Your task to perform on an android device: set an alarm Image 0: 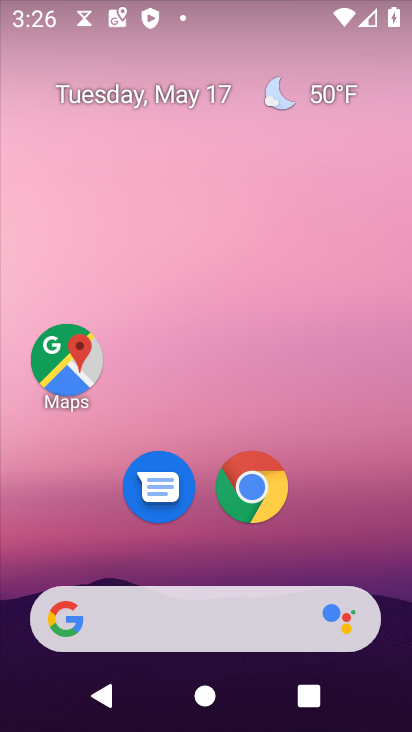
Step 0: drag from (374, 581) to (323, 215)
Your task to perform on an android device: set an alarm Image 1: 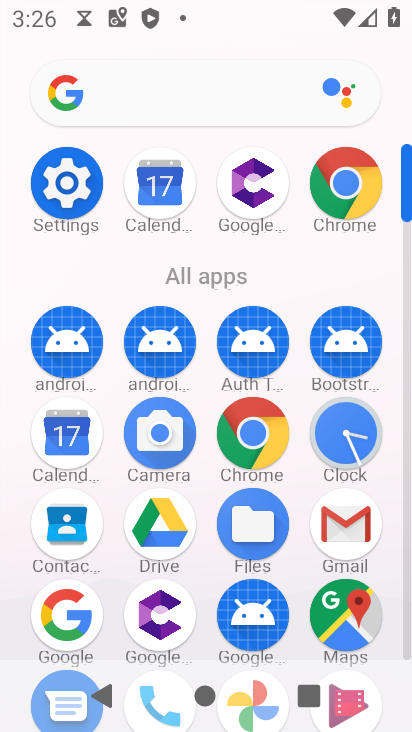
Step 1: click (406, 644)
Your task to perform on an android device: set an alarm Image 2: 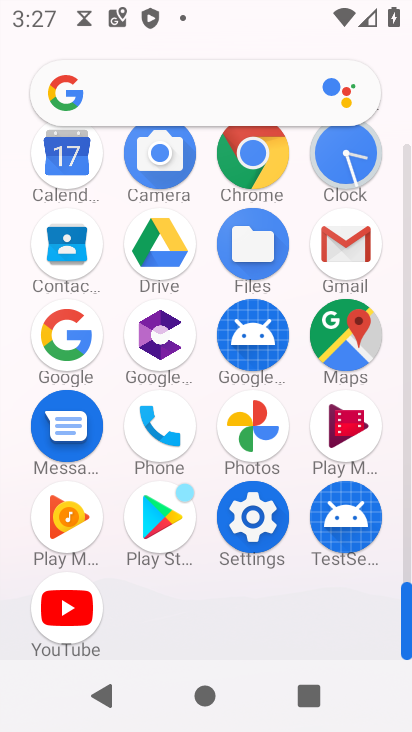
Step 2: click (342, 155)
Your task to perform on an android device: set an alarm Image 3: 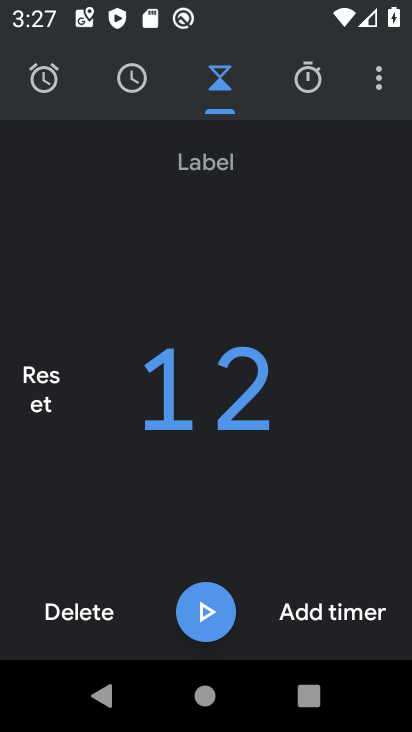
Step 3: click (48, 83)
Your task to perform on an android device: set an alarm Image 4: 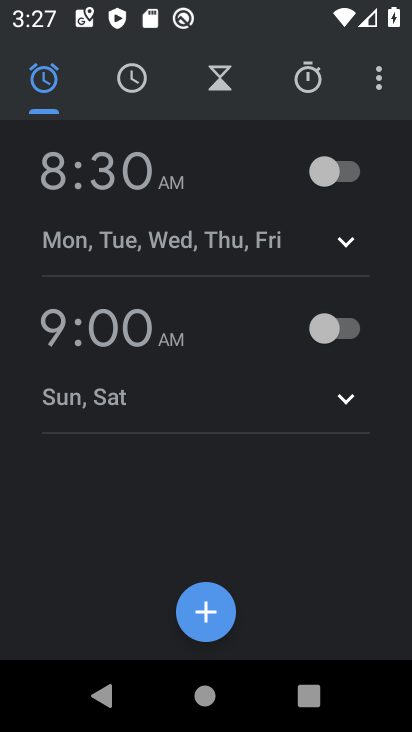
Step 4: click (75, 181)
Your task to perform on an android device: set an alarm Image 5: 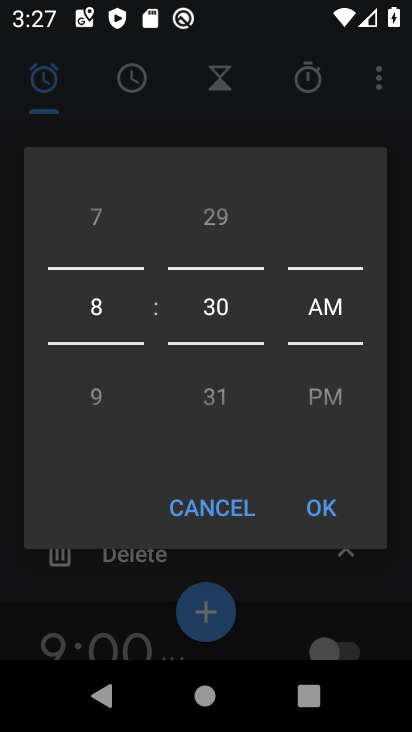
Step 5: drag from (103, 250) to (95, 446)
Your task to perform on an android device: set an alarm Image 6: 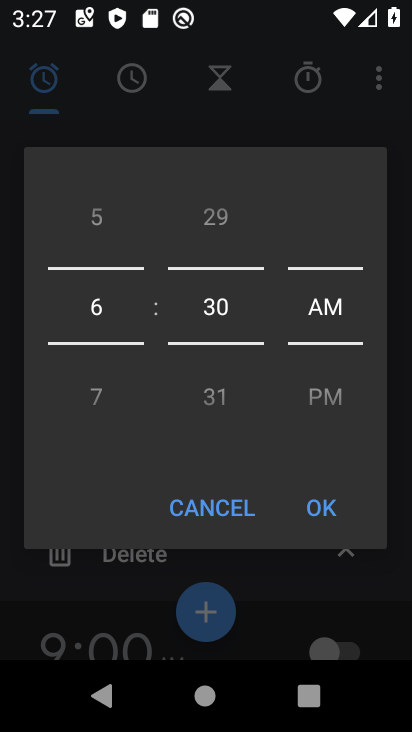
Step 6: click (326, 513)
Your task to perform on an android device: set an alarm Image 7: 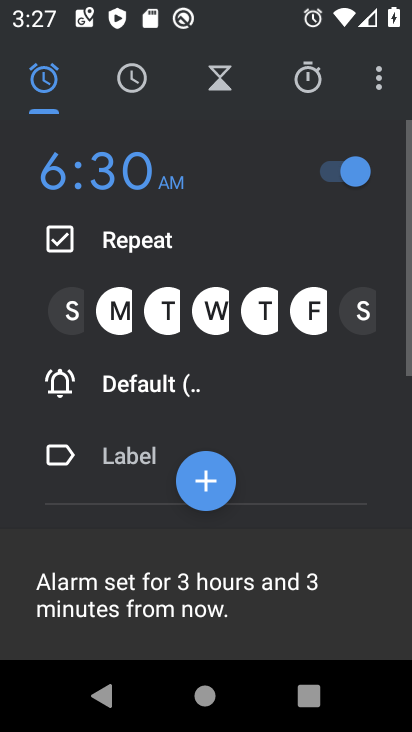
Step 7: click (363, 309)
Your task to perform on an android device: set an alarm Image 8: 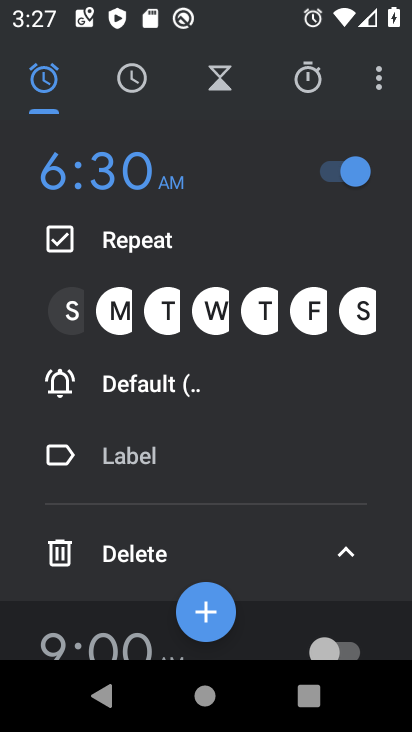
Step 8: click (348, 549)
Your task to perform on an android device: set an alarm Image 9: 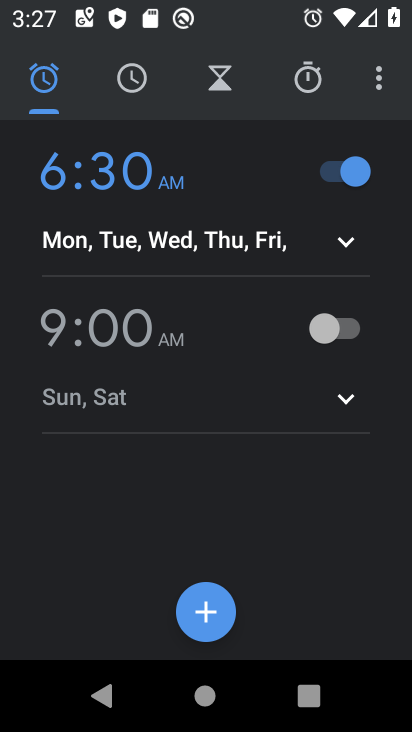
Step 9: task complete